Your task to perform on an android device: Go to Android settings Image 0: 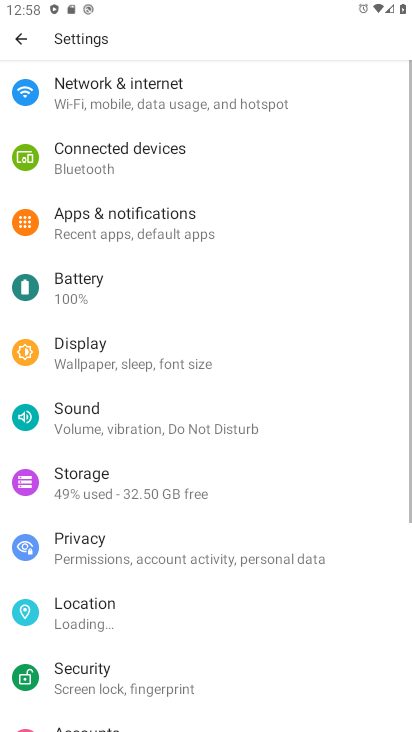
Step 0: press home button
Your task to perform on an android device: Go to Android settings Image 1: 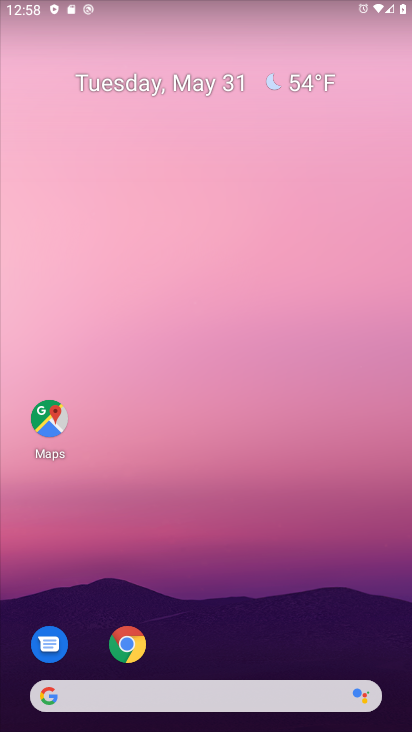
Step 1: drag from (213, 643) to (202, 224)
Your task to perform on an android device: Go to Android settings Image 2: 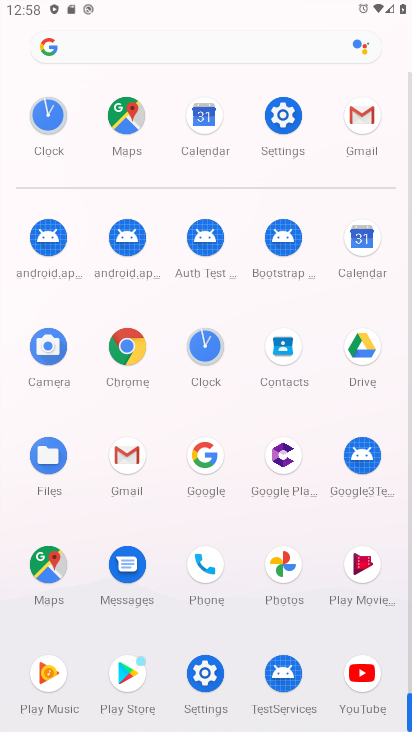
Step 2: click (286, 119)
Your task to perform on an android device: Go to Android settings Image 3: 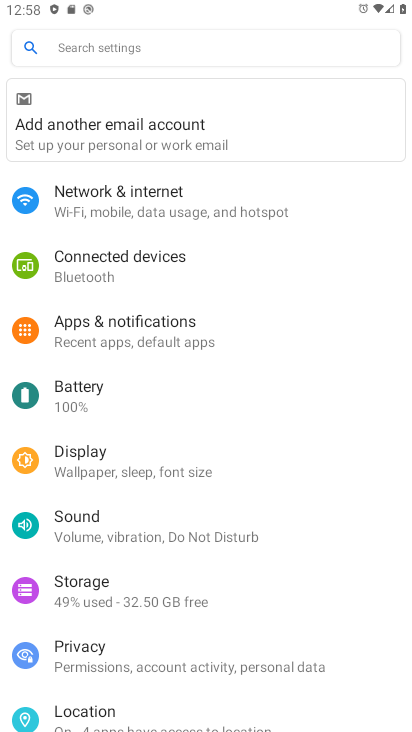
Step 3: task complete